Your task to perform on an android device: open app "LiveIn - Share Your Moment" Image 0: 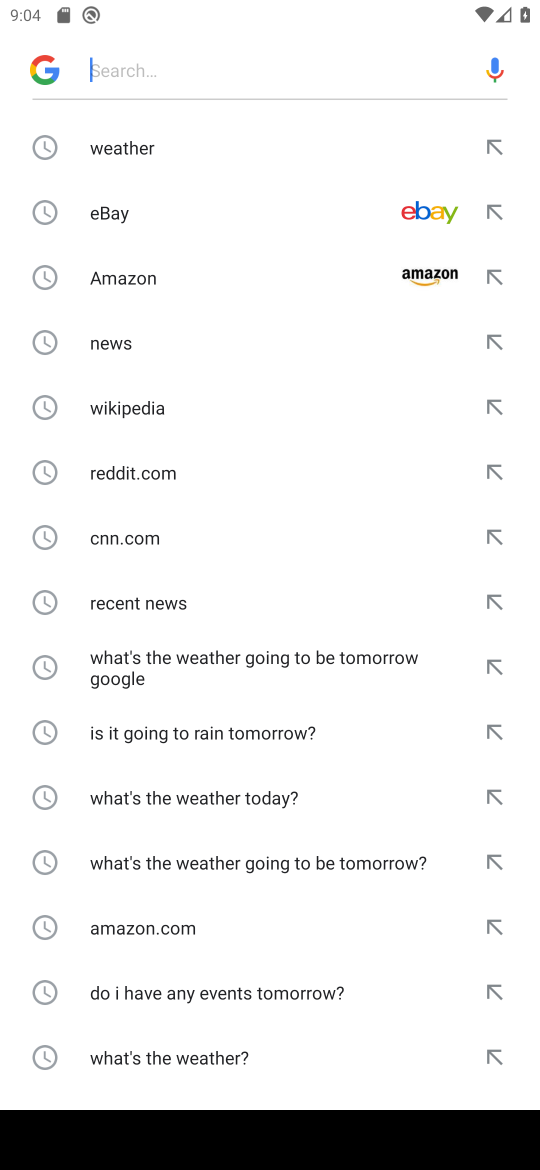
Step 0: press home button
Your task to perform on an android device: open app "LiveIn - Share Your Moment" Image 1: 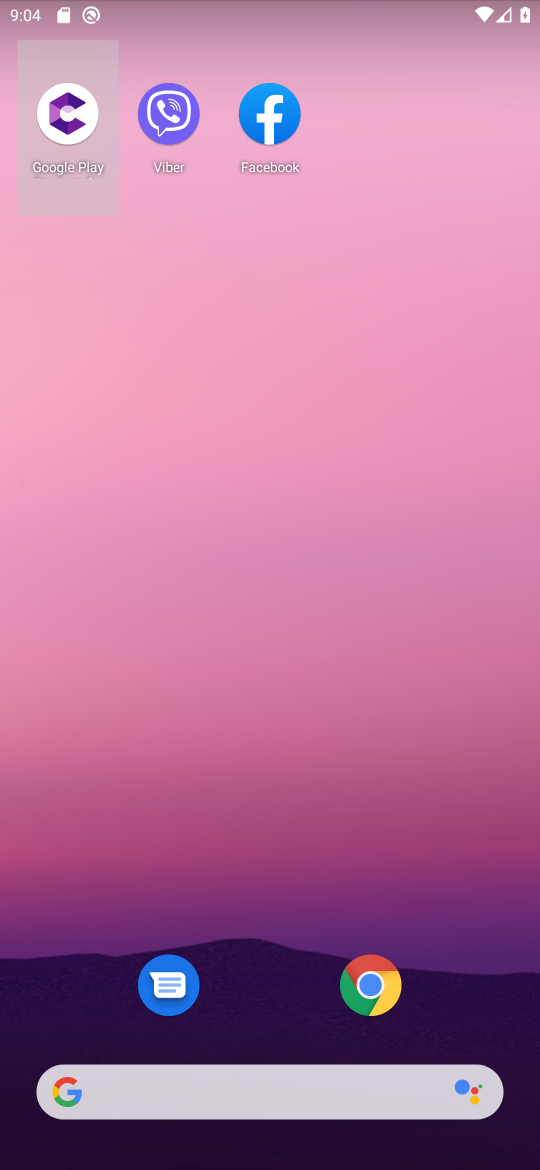
Step 1: drag from (228, 890) to (230, 444)
Your task to perform on an android device: open app "LiveIn - Share Your Moment" Image 2: 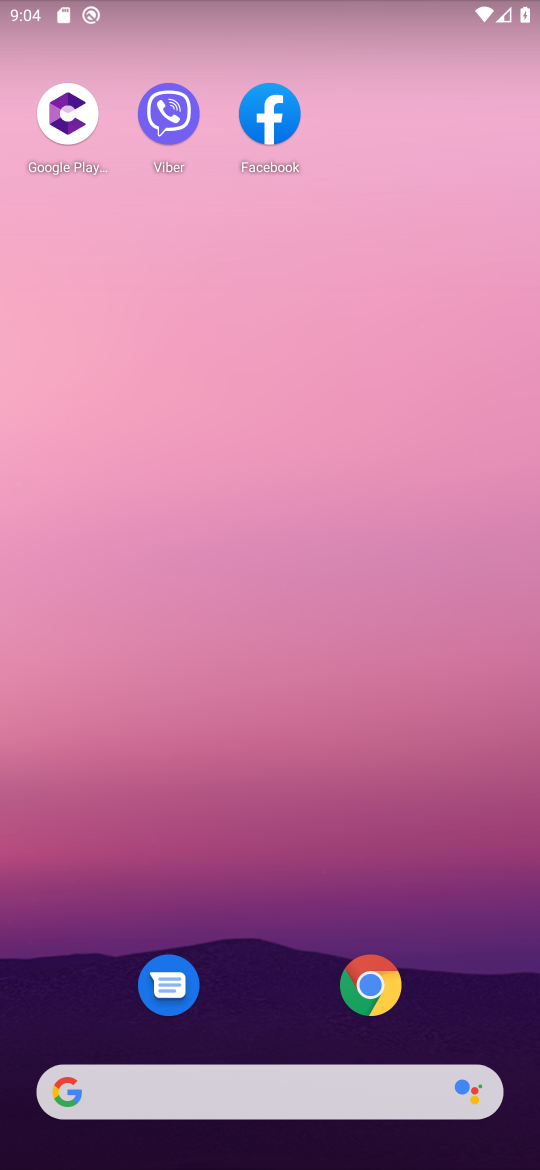
Step 2: drag from (266, 937) to (167, 212)
Your task to perform on an android device: open app "LiveIn - Share Your Moment" Image 3: 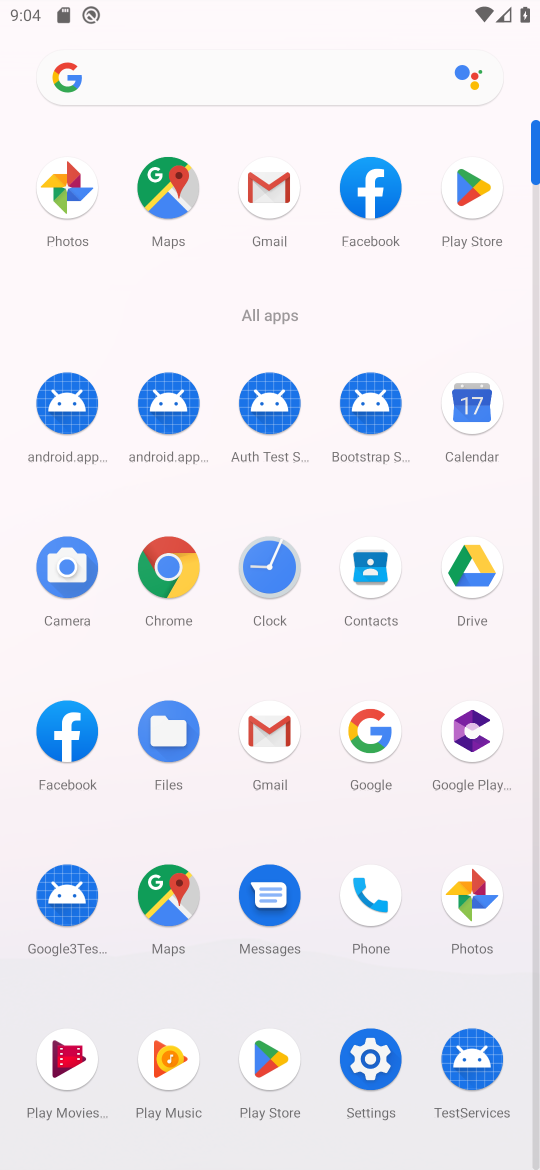
Step 3: click (473, 181)
Your task to perform on an android device: open app "LiveIn - Share Your Moment" Image 4: 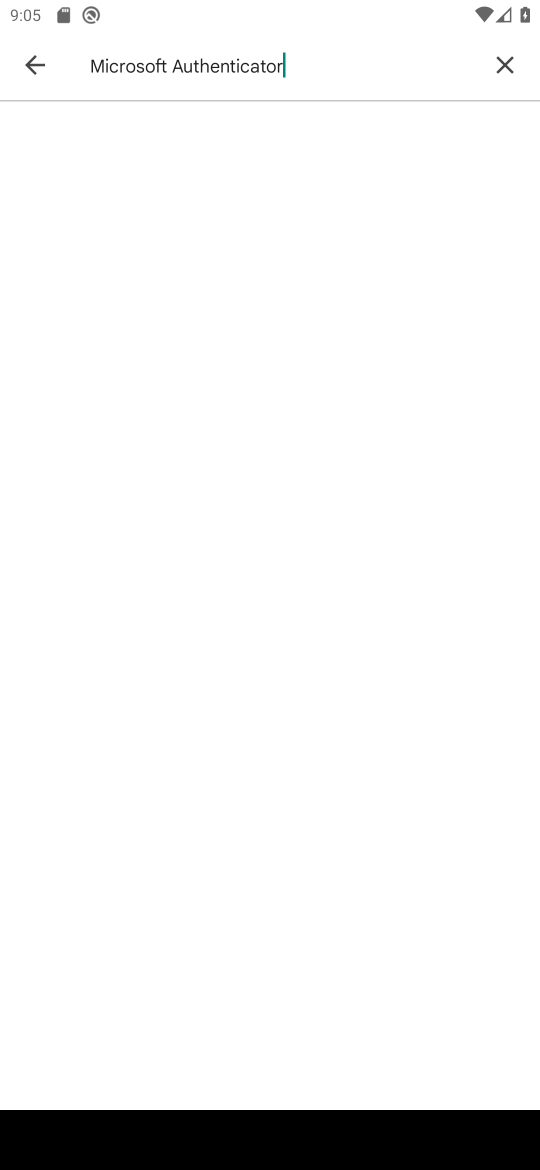
Step 4: click (503, 69)
Your task to perform on an android device: open app "LiveIn - Share Your Moment" Image 5: 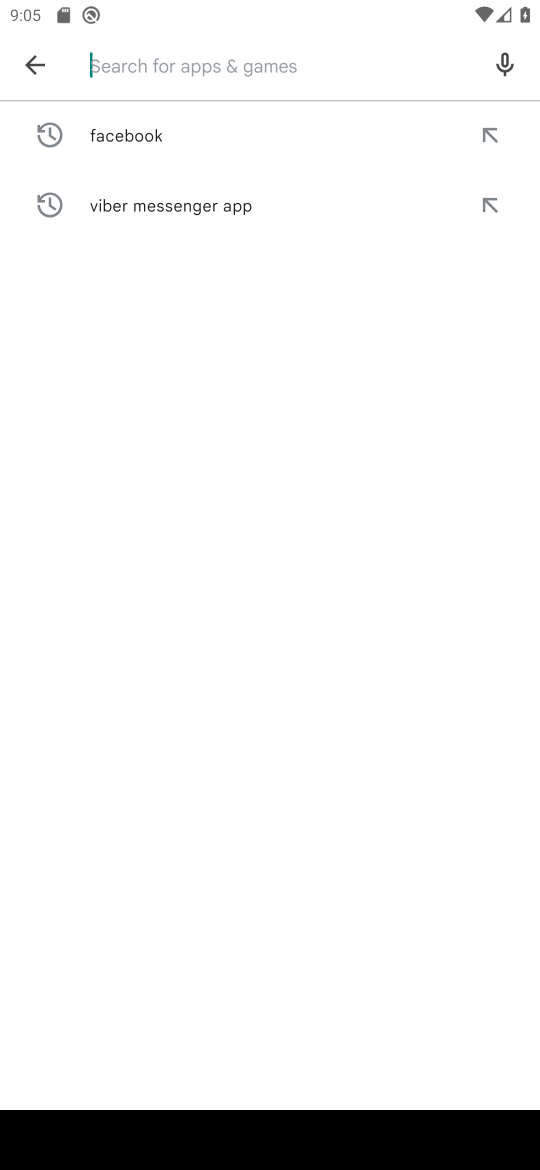
Step 5: click (39, 58)
Your task to perform on an android device: open app "LiveIn - Share Your Moment" Image 6: 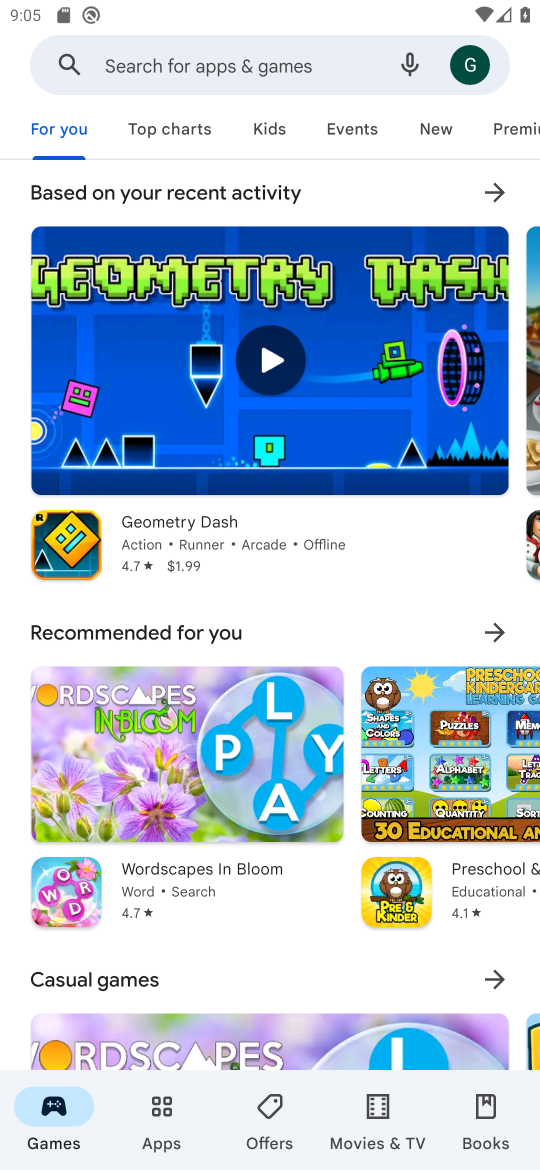
Step 6: click (160, 1107)
Your task to perform on an android device: open app "LiveIn - Share Your Moment" Image 7: 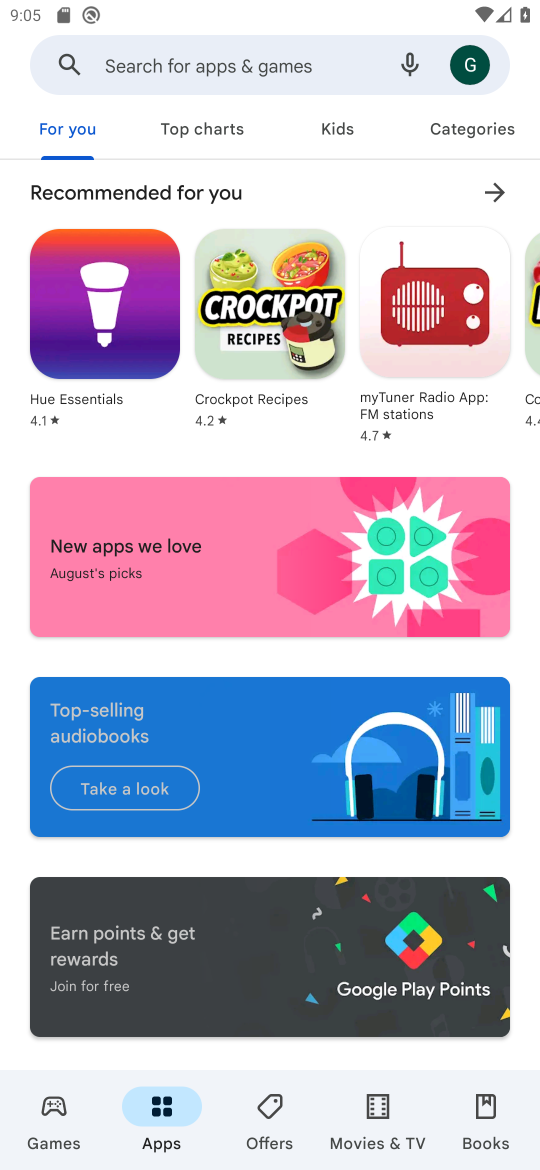
Step 7: click (253, 46)
Your task to perform on an android device: open app "LiveIn - Share Your Moment" Image 8: 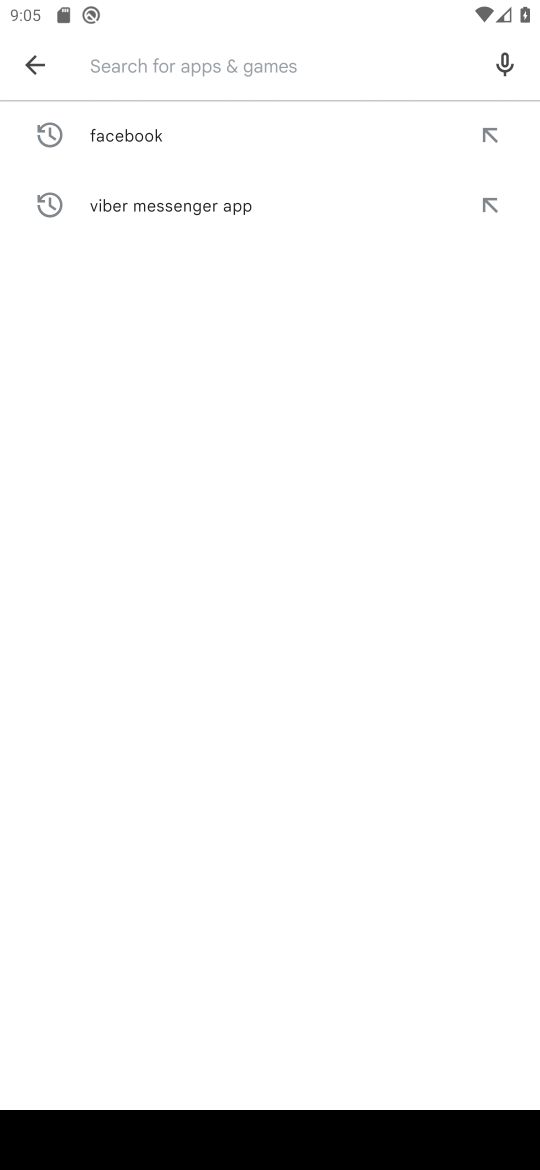
Step 8: type "LiveIn"
Your task to perform on an android device: open app "LiveIn - Share Your Moment" Image 9: 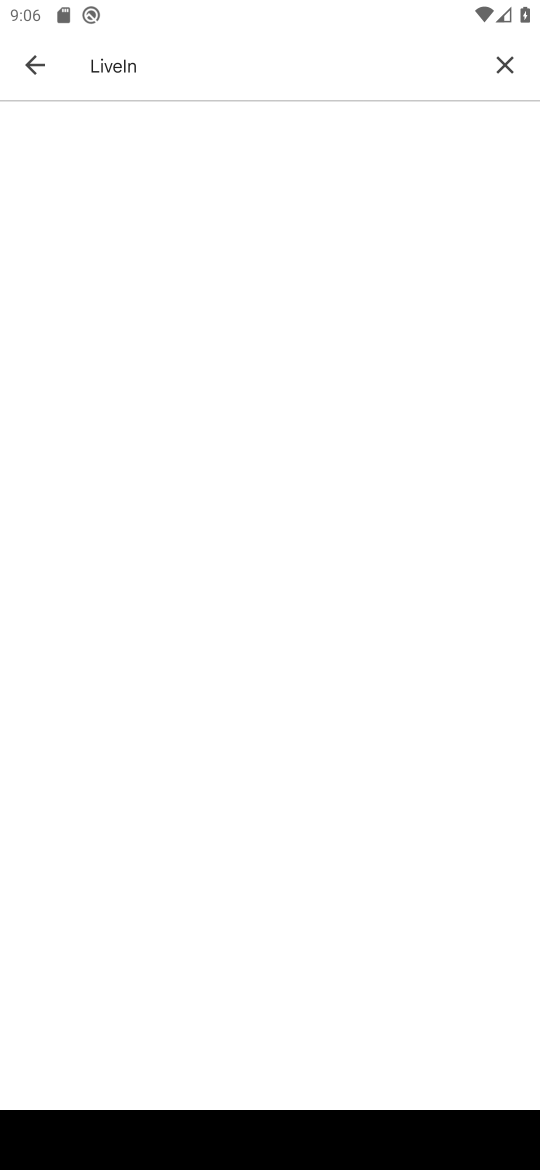
Step 9: click (45, 69)
Your task to perform on an android device: open app "LiveIn - Share Your Moment" Image 10: 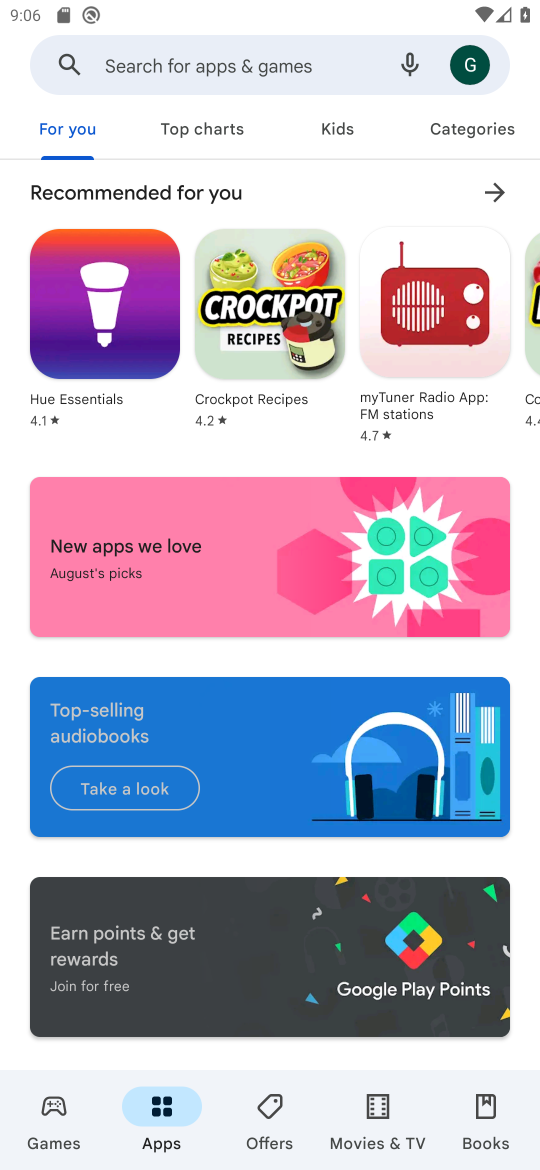
Step 10: click (183, 62)
Your task to perform on an android device: open app "LiveIn - Share Your Moment" Image 11: 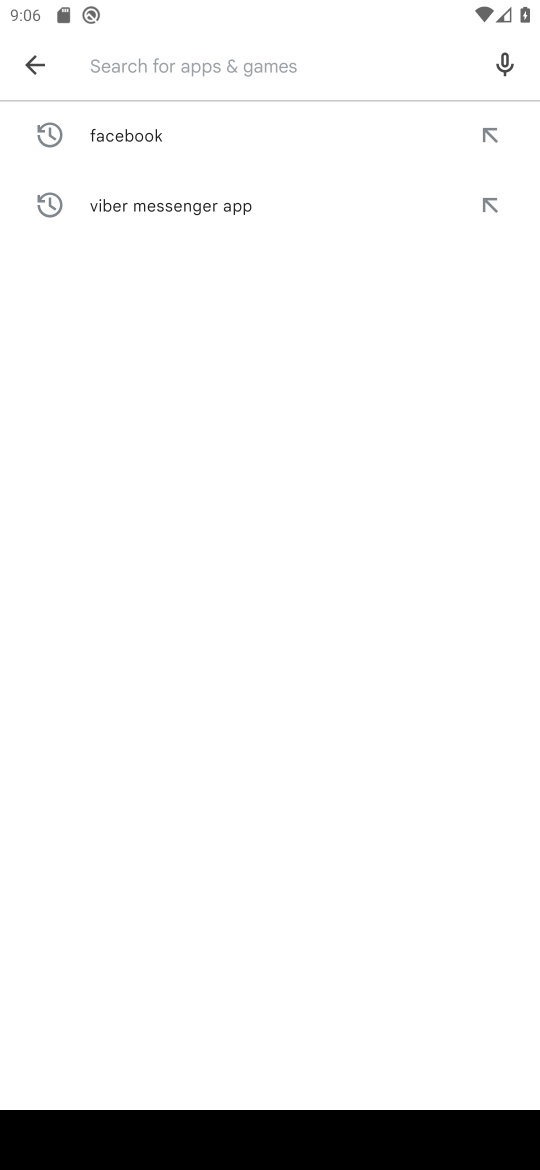
Step 11: type "LiveIn"
Your task to perform on an android device: open app "LiveIn - Share Your Moment" Image 12: 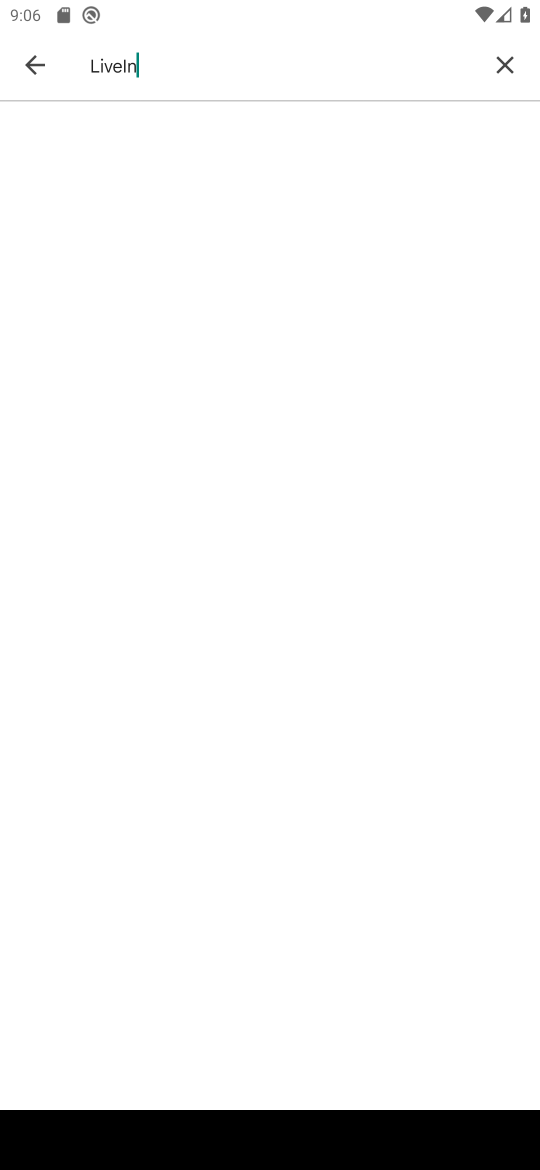
Step 12: click (507, 49)
Your task to perform on an android device: open app "LiveIn - Share Your Moment" Image 13: 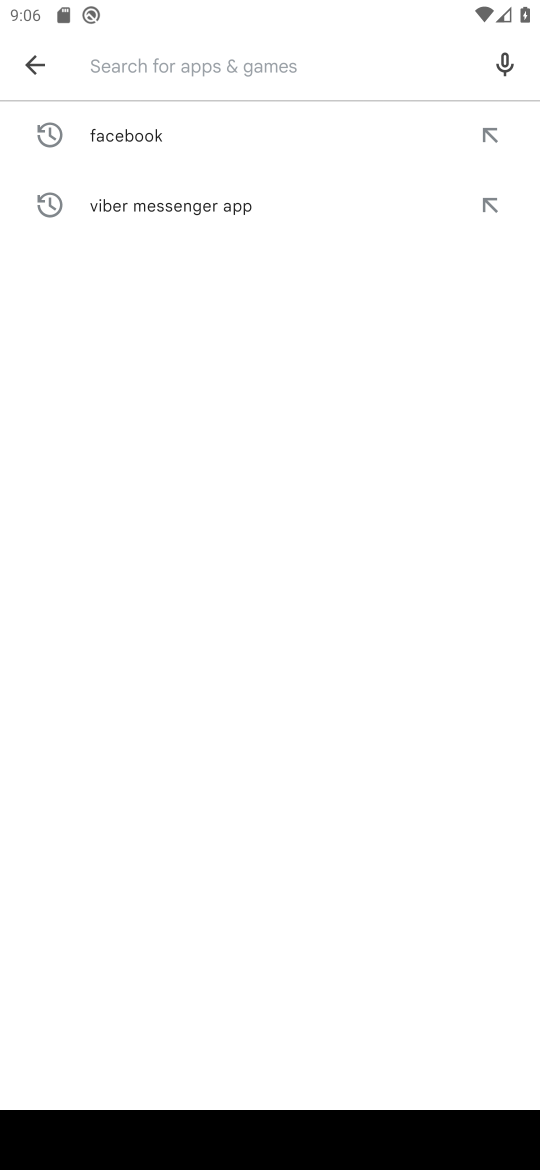
Step 13: type "LiveIn"
Your task to perform on an android device: open app "LiveIn - Share Your Moment" Image 14: 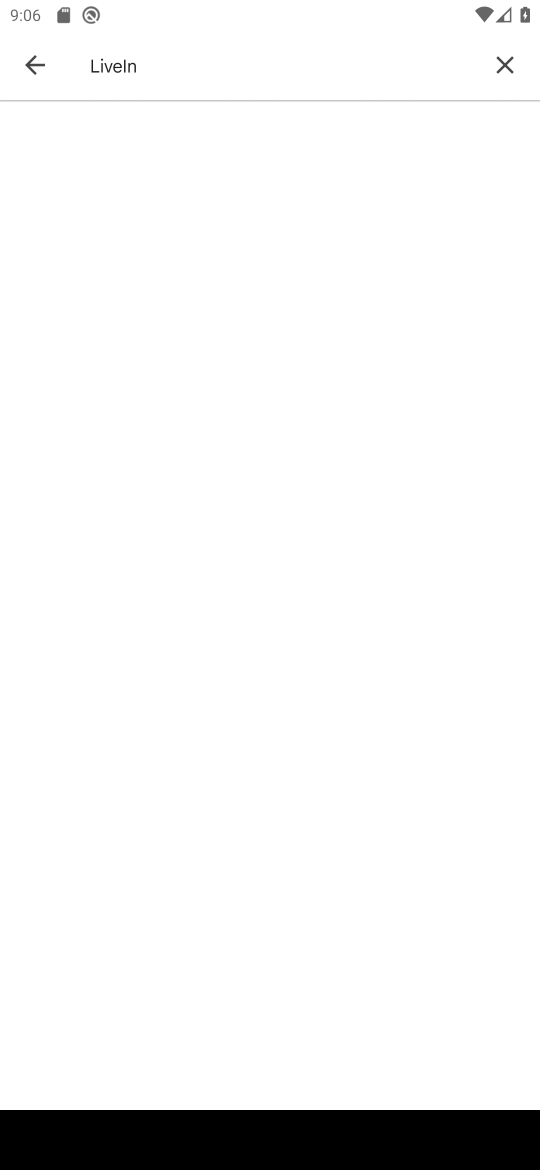
Step 14: task complete